Your task to perform on an android device: change text size in settings app Image 0: 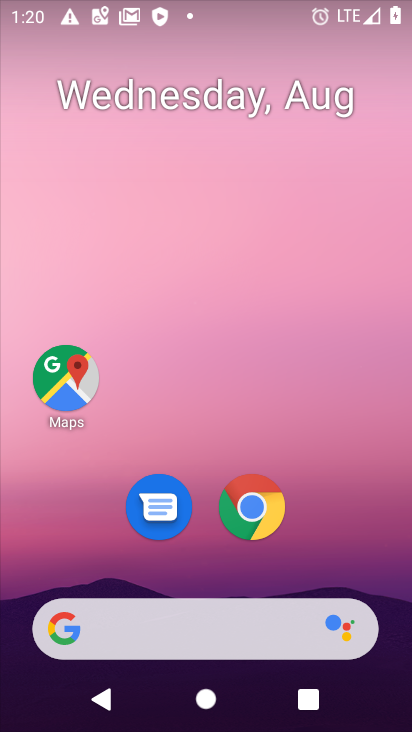
Step 0: drag from (237, 591) to (361, 274)
Your task to perform on an android device: change text size in settings app Image 1: 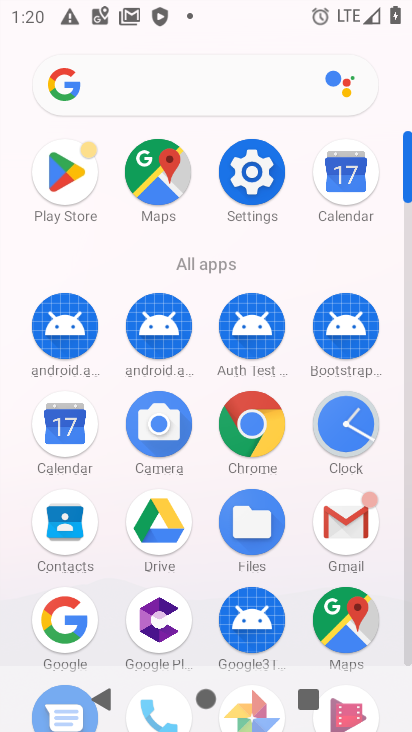
Step 1: click (262, 170)
Your task to perform on an android device: change text size in settings app Image 2: 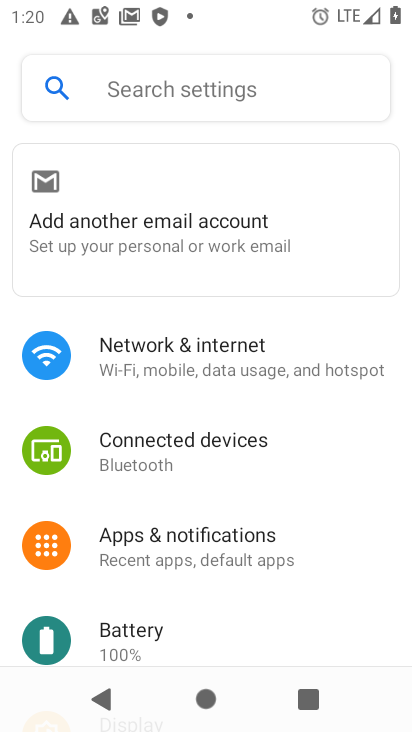
Step 2: drag from (187, 586) to (104, 139)
Your task to perform on an android device: change text size in settings app Image 3: 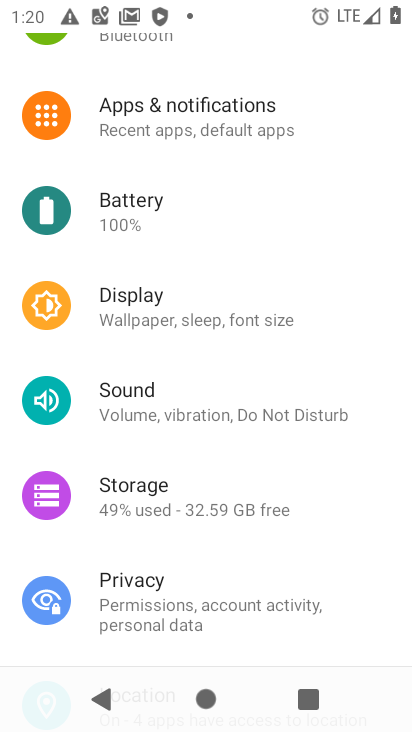
Step 3: click (140, 285)
Your task to perform on an android device: change text size in settings app Image 4: 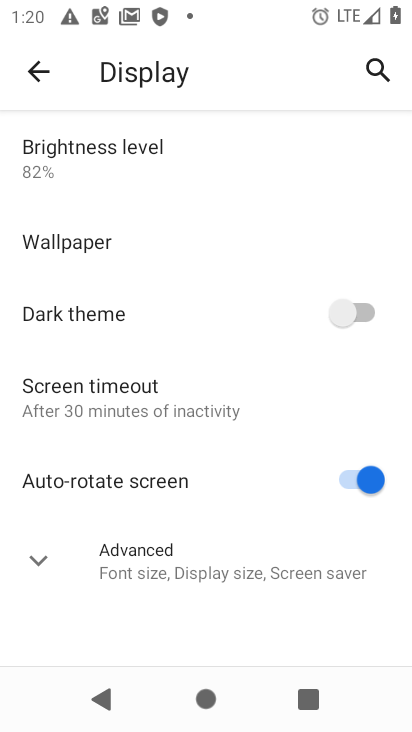
Step 4: click (129, 566)
Your task to perform on an android device: change text size in settings app Image 5: 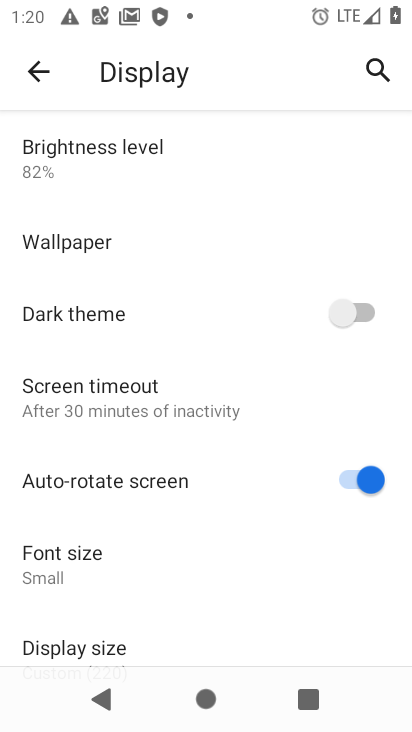
Step 5: click (140, 558)
Your task to perform on an android device: change text size in settings app Image 6: 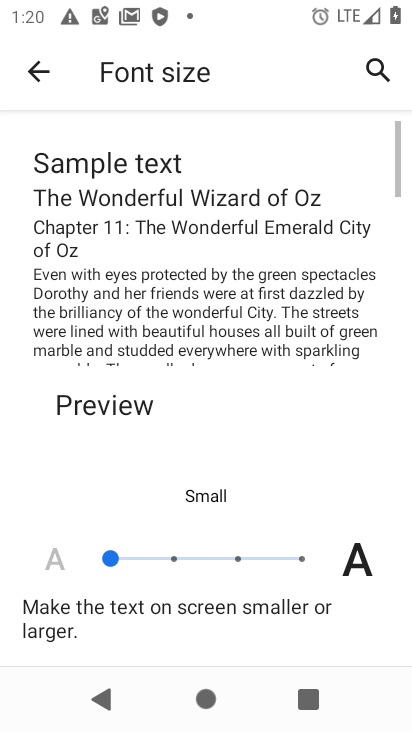
Step 6: click (163, 558)
Your task to perform on an android device: change text size in settings app Image 7: 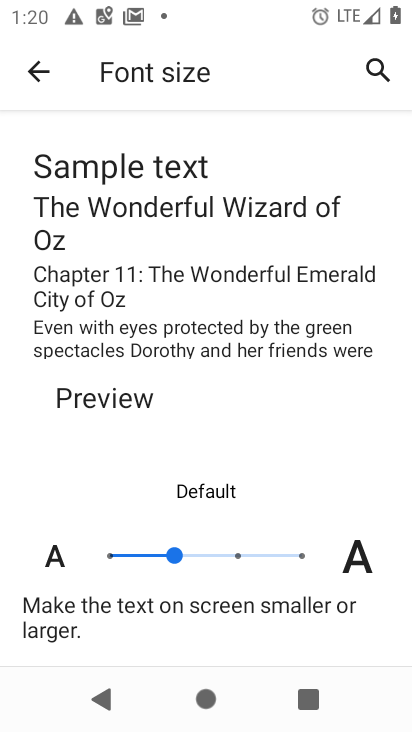
Step 7: task complete